Your task to perform on an android device: Add jbl charge 4 to the cart on target Image 0: 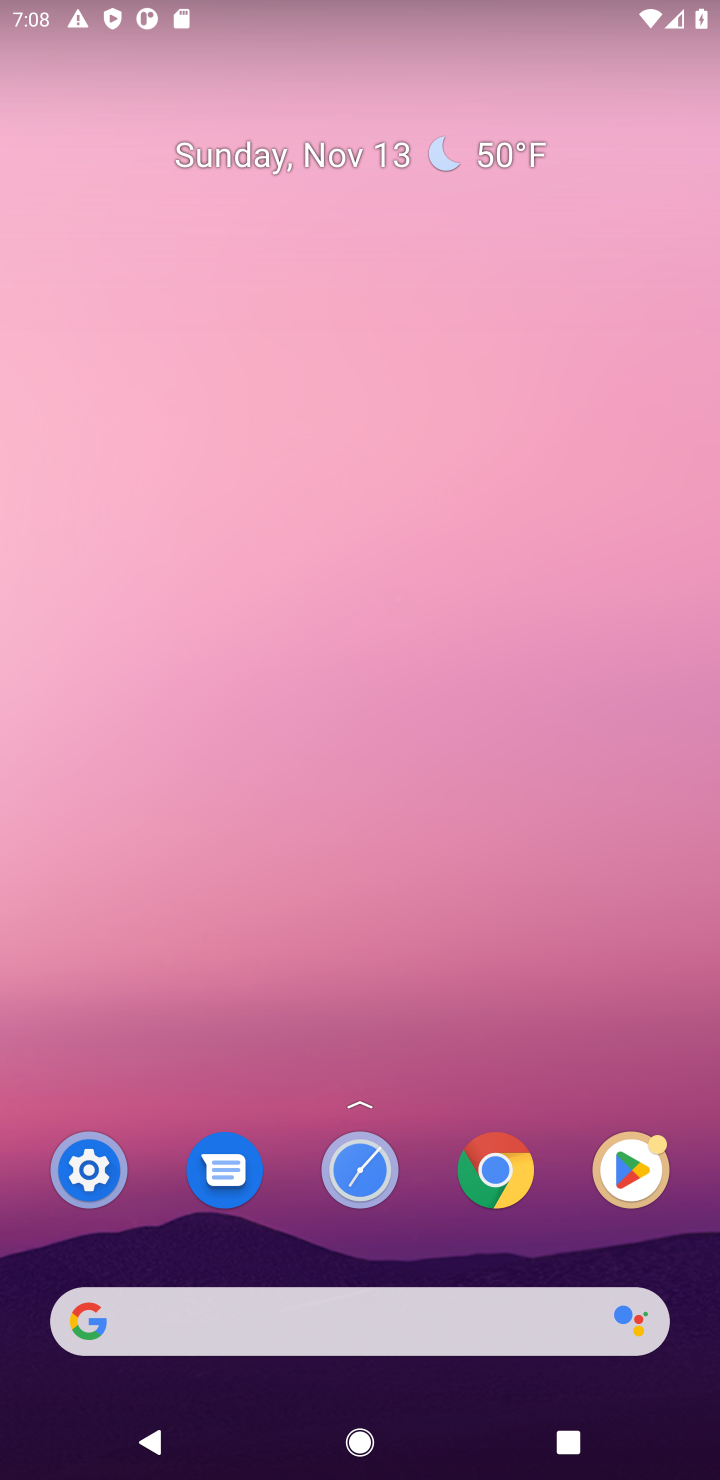
Step 0: click (433, 1323)
Your task to perform on an android device: Add jbl charge 4 to the cart on target Image 1: 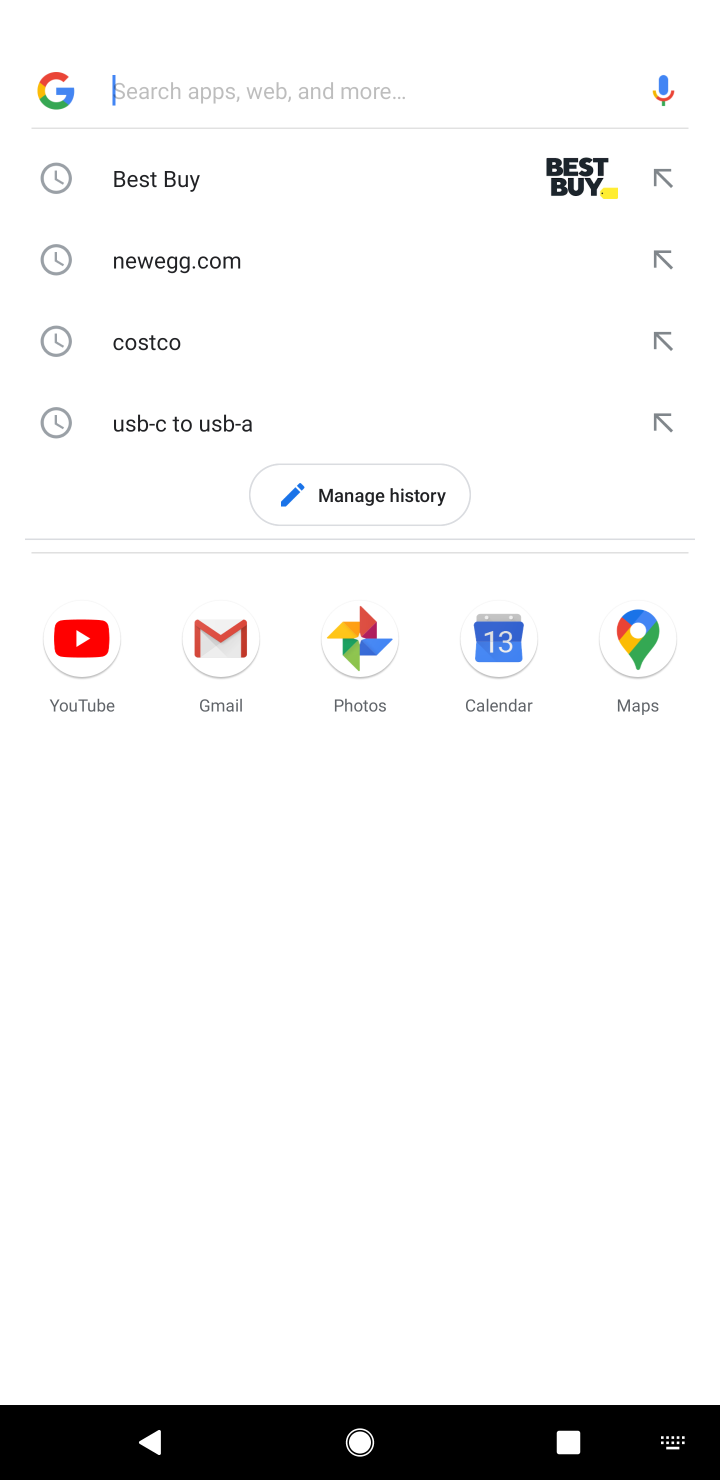
Step 1: type "target"
Your task to perform on an android device: Add jbl charge 4 to the cart on target Image 2: 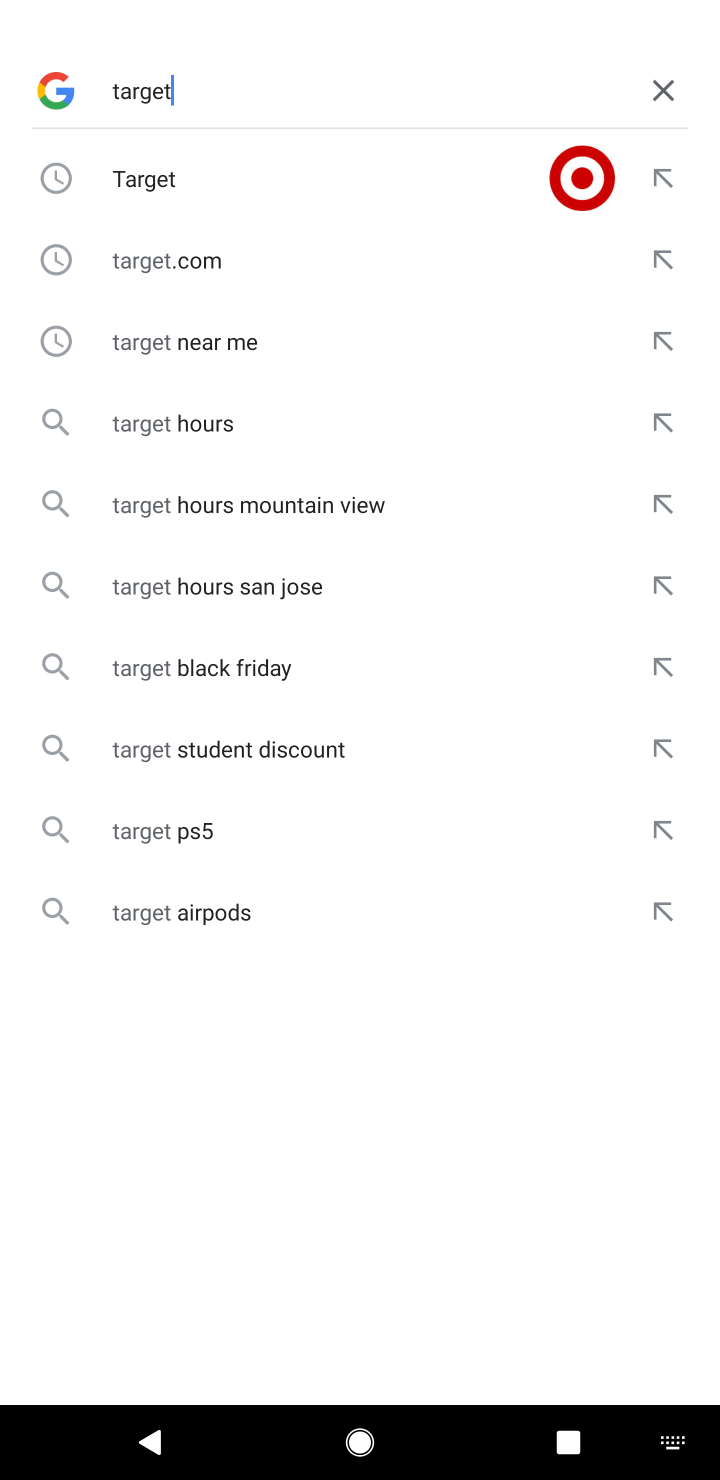
Step 2: click (152, 193)
Your task to perform on an android device: Add jbl charge 4 to the cart on target Image 3: 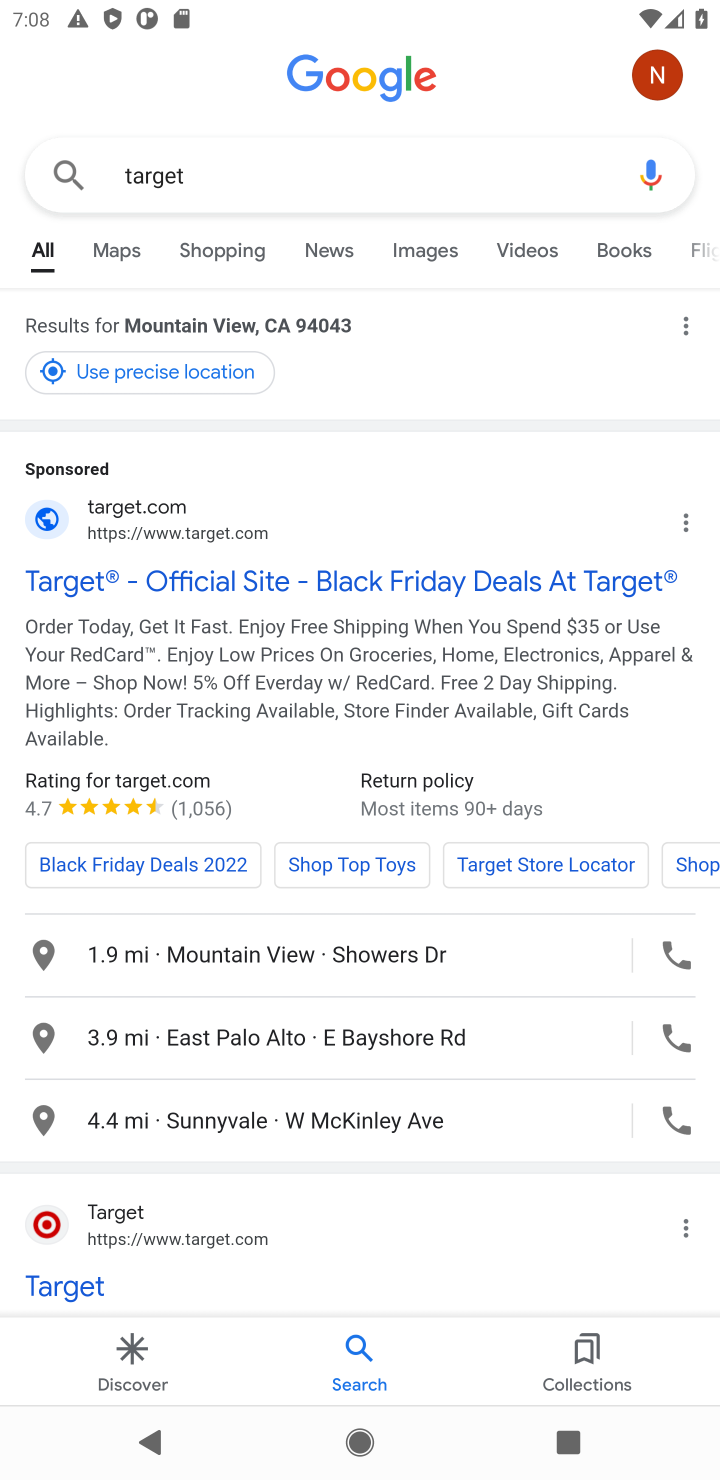
Step 3: click (279, 593)
Your task to perform on an android device: Add jbl charge 4 to the cart on target Image 4: 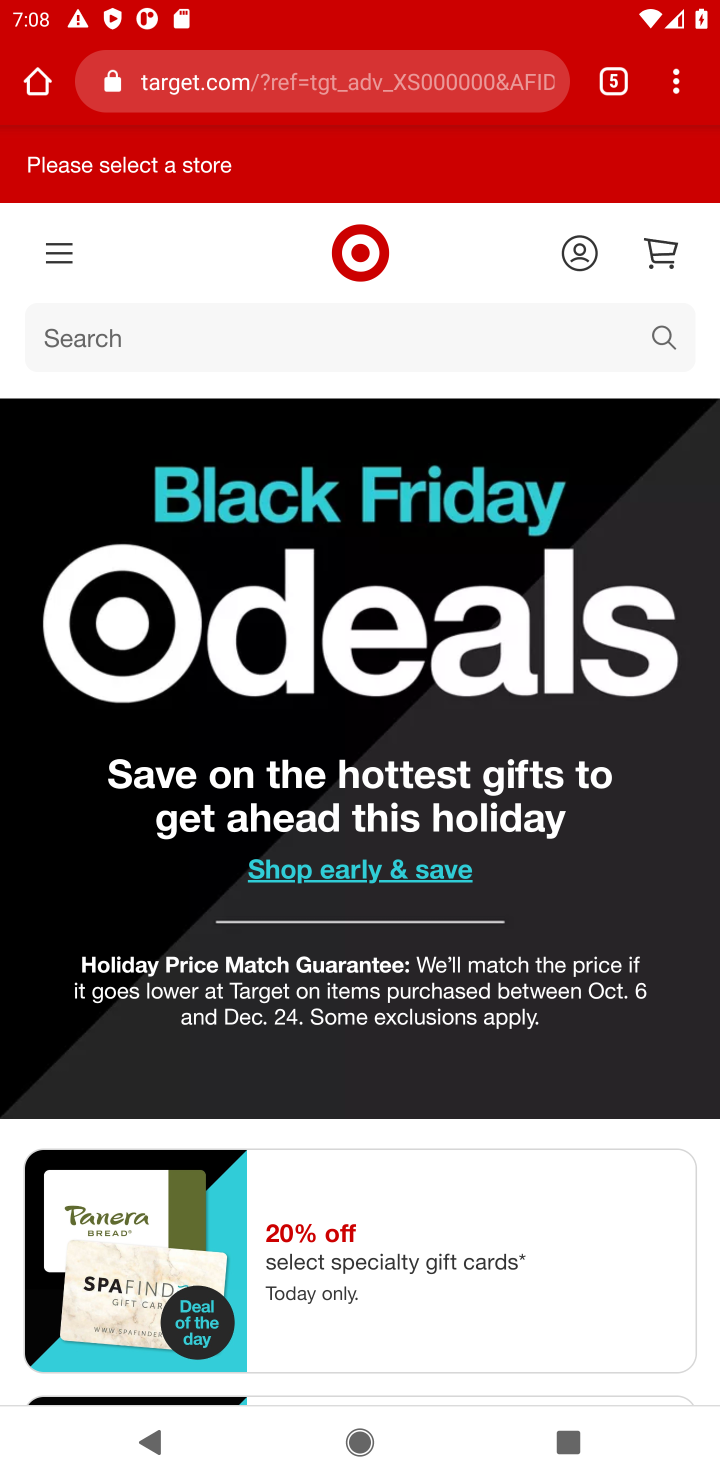
Step 4: task complete